Your task to perform on an android device: change the clock style Image 0: 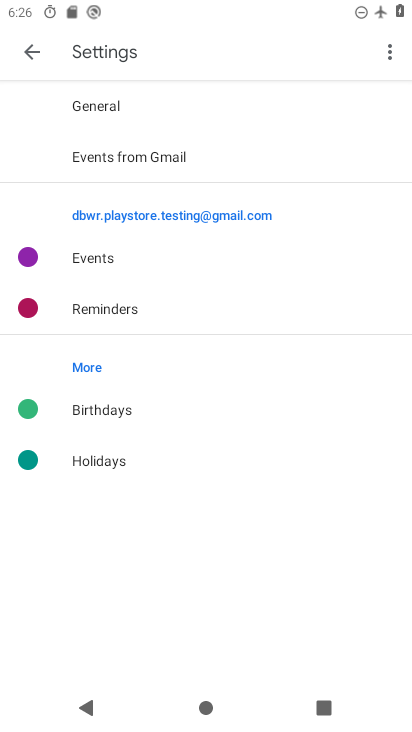
Step 0: press home button
Your task to perform on an android device: change the clock style Image 1: 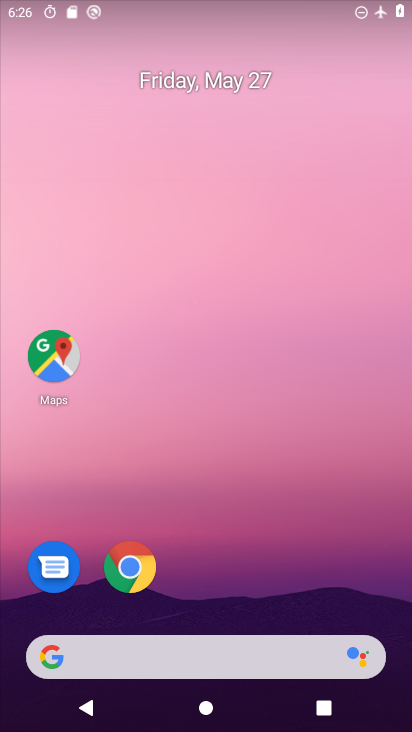
Step 1: drag from (252, 590) to (235, 114)
Your task to perform on an android device: change the clock style Image 2: 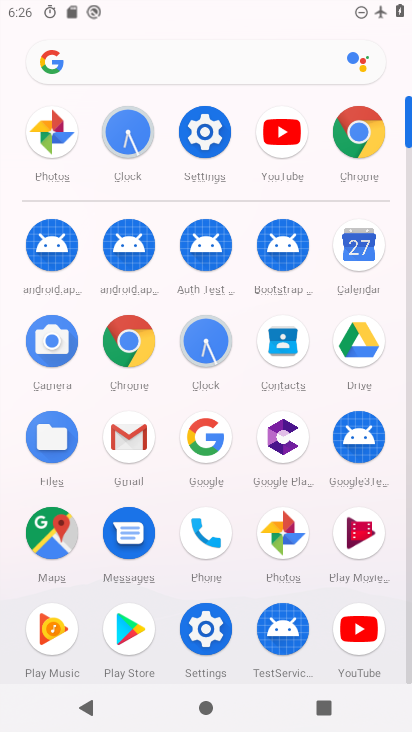
Step 2: click (195, 346)
Your task to perform on an android device: change the clock style Image 3: 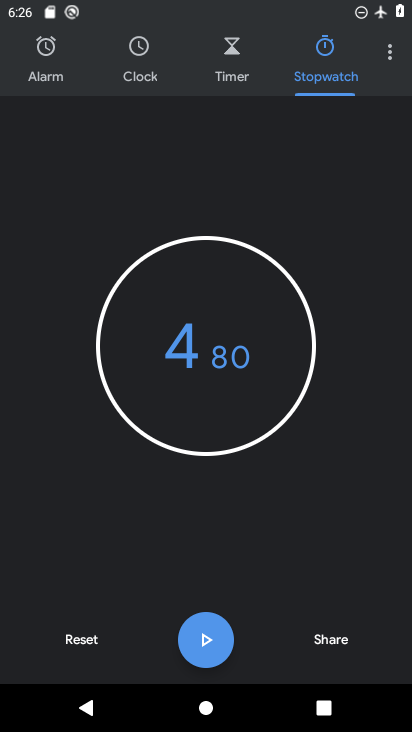
Step 3: click (393, 61)
Your task to perform on an android device: change the clock style Image 4: 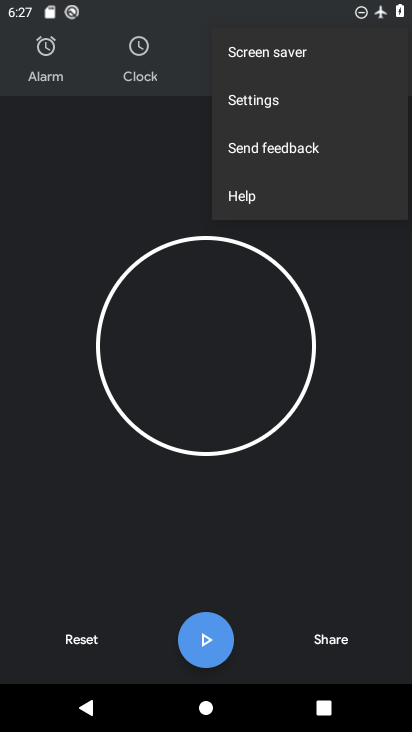
Step 4: click (233, 106)
Your task to perform on an android device: change the clock style Image 5: 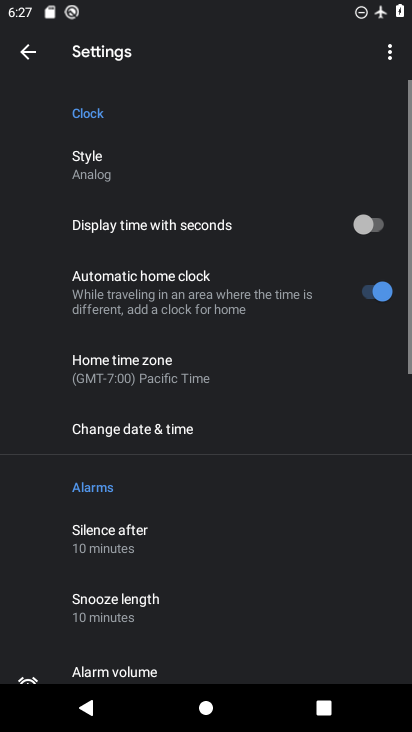
Step 5: click (101, 181)
Your task to perform on an android device: change the clock style Image 6: 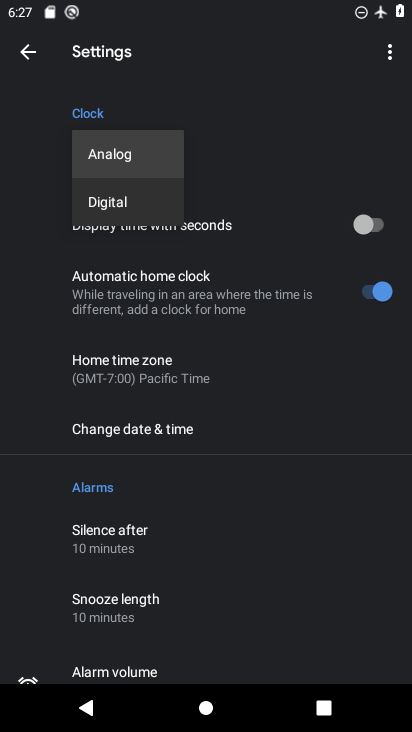
Step 6: click (107, 208)
Your task to perform on an android device: change the clock style Image 7: 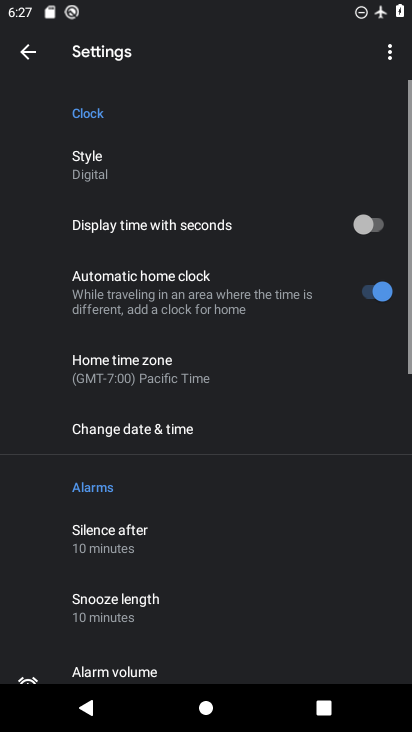
Step 7: task complete